Your task to perform on an android device: Go to Google Image 0: 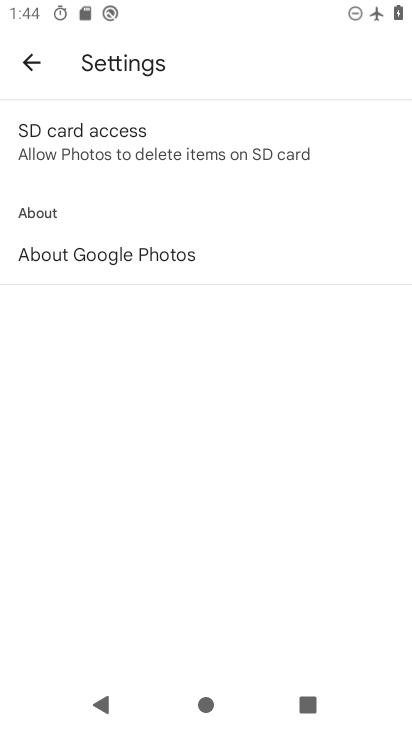
Step 0: press home button
Your task to perform on an android device: Go to Google Image 1: 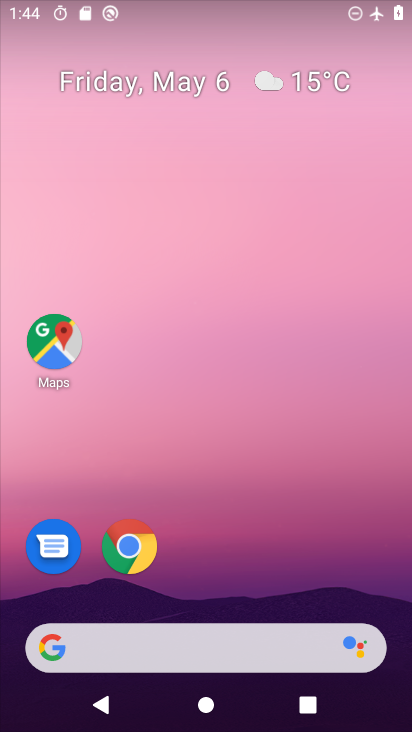
Step 1: drag from (275, 584) to (352, 77)
Your task to perform on an android device: Go to Google Image 2: 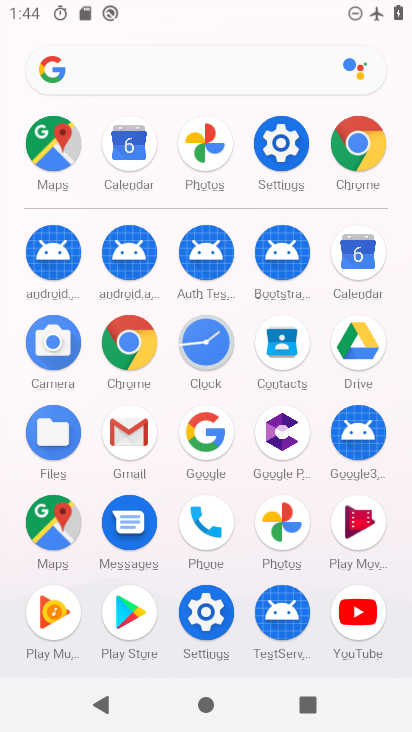
Step 2: click (210, 428)
Your task to perform on an android device: Go to Google Image 3: 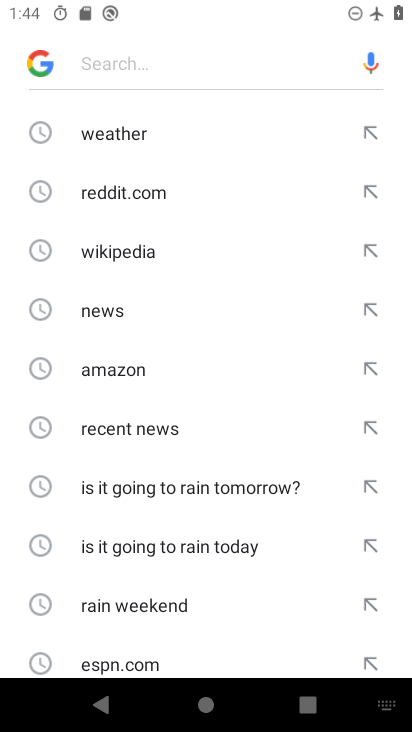
Step 3: task complete